Your task to perform on an android device: toggle sleep mode Image 0: 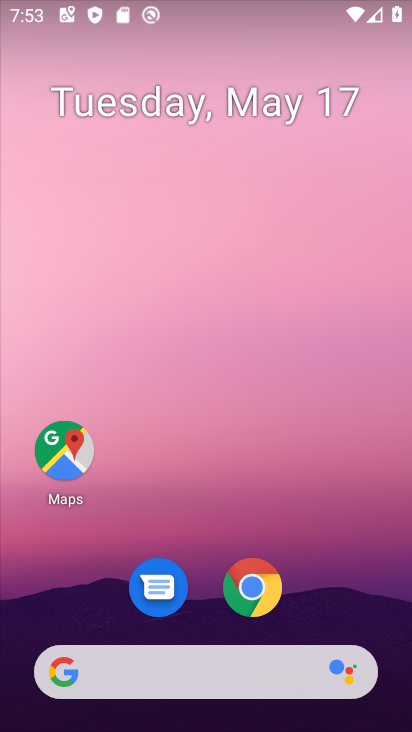
Step 0: drag from (269, 401) to (233, 7)
Your task to perform on an android device: toggle sleep mode Image 1: 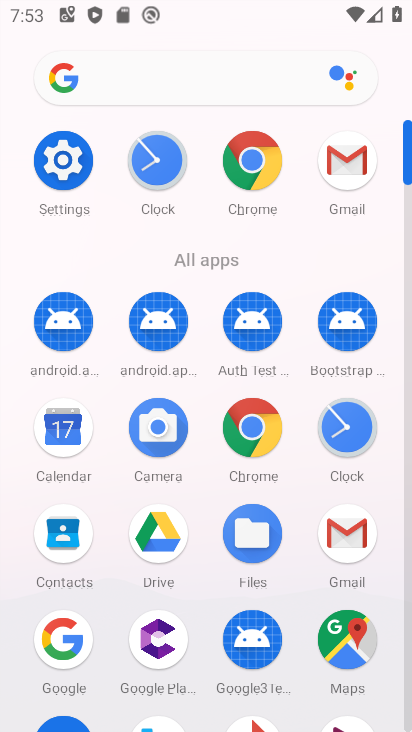
Step 1: click (58, 159)
Your task to perform on an android device: toggle sleep mode Image 2: 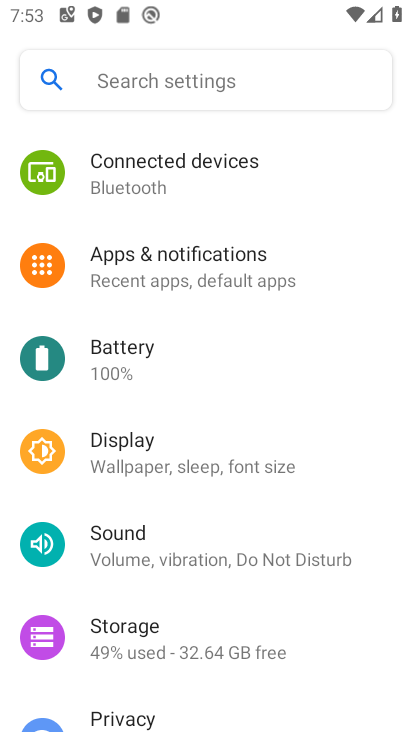
Step 2: click (140, 453)
Your task to perform on an android device: toggle sleep mode Image 3: 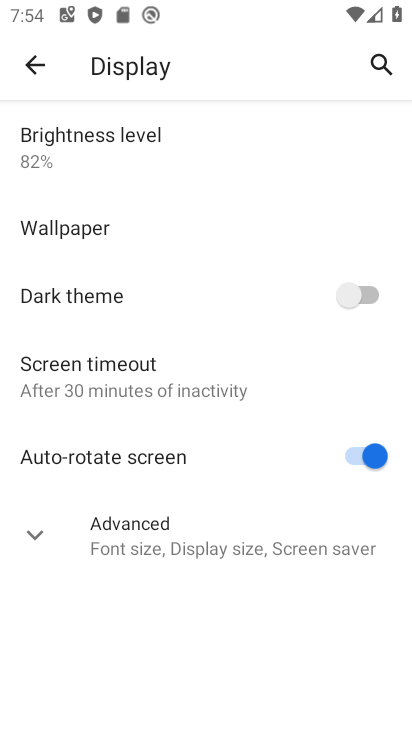
Step 3: click (121, 364)
Your task to perform on an android device: toggle sleep mode Image 4: 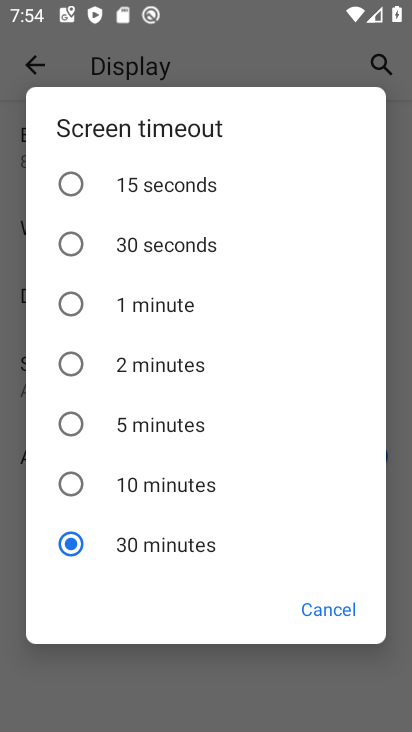
Step 4: click (138, 475)
Your task to perform on an android device: toggle sleep mode Image 5: 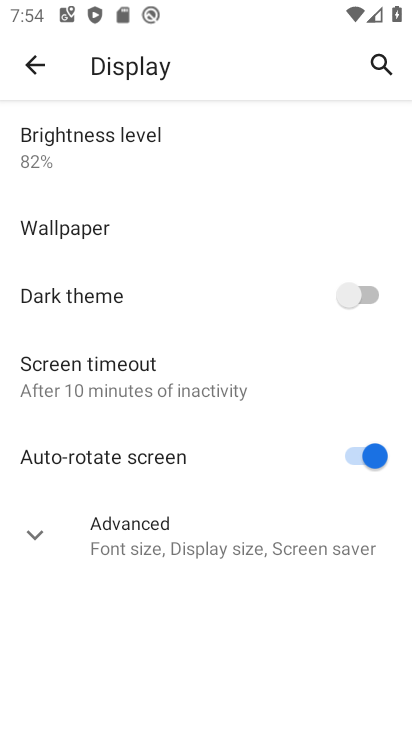
Step 5: task complete